Your task to perform on an android device: Open eBay Image 0: 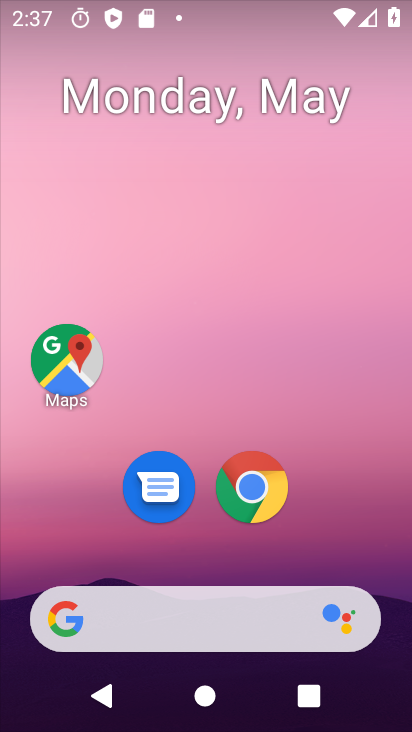
Step 0: click (264, 494)
Your task to perform on an android device: Open eBay Image 1: 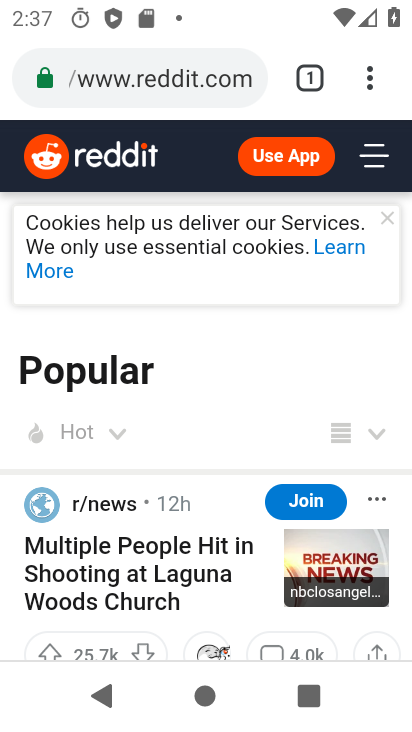
Step 1: click (180, 78)
Your task to perform on an android device: Open eBay Image 2: 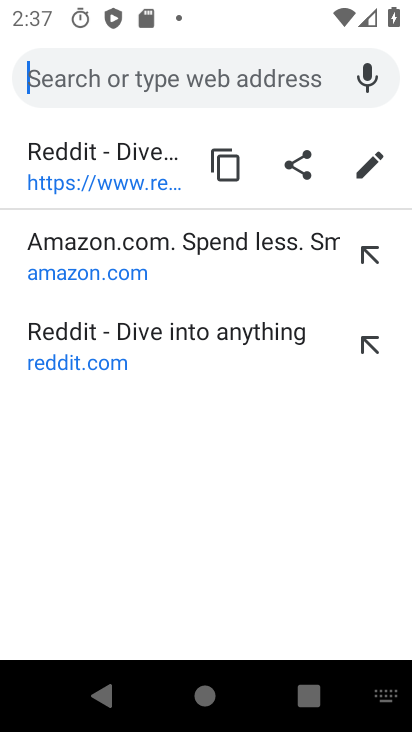
Step 2: type ""
Your task to perform on an android device: Open eBay Image 3: 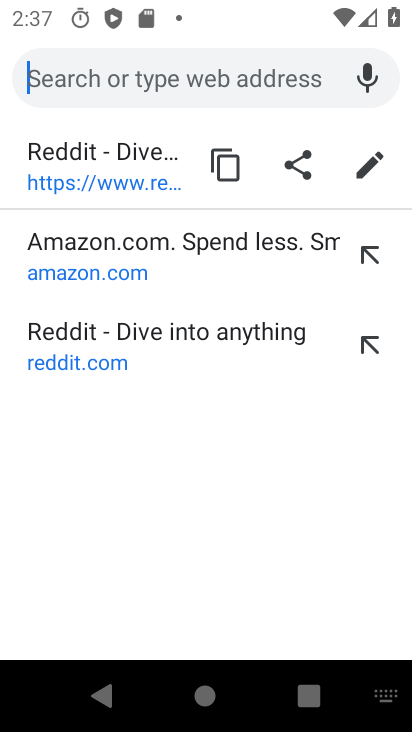
Step 3: type "eBay"
Your task to perform on an android device: Open eBay Image 4: 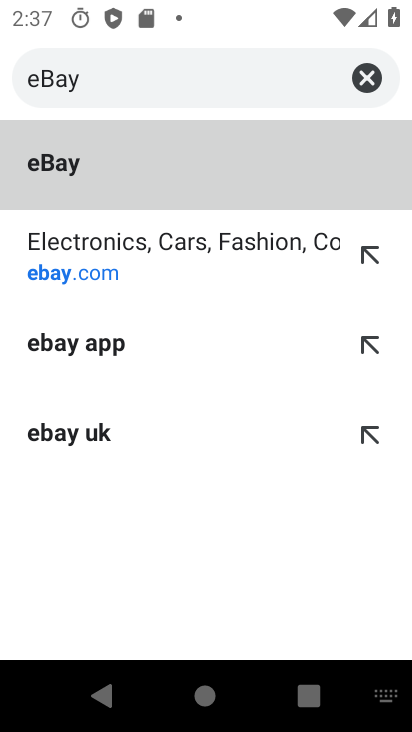
Step 4: click (110, 161)
Your task to perform on an android device: Open eBay Image 5: 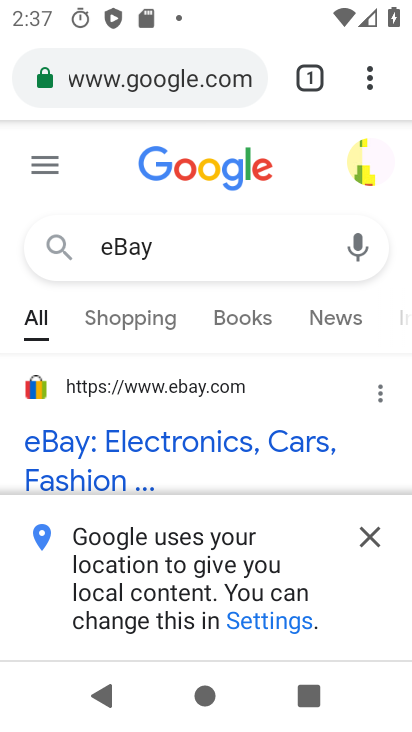
Step 5: click (370, 531)
Your task to perform on an android device: Open eBay Image 6: 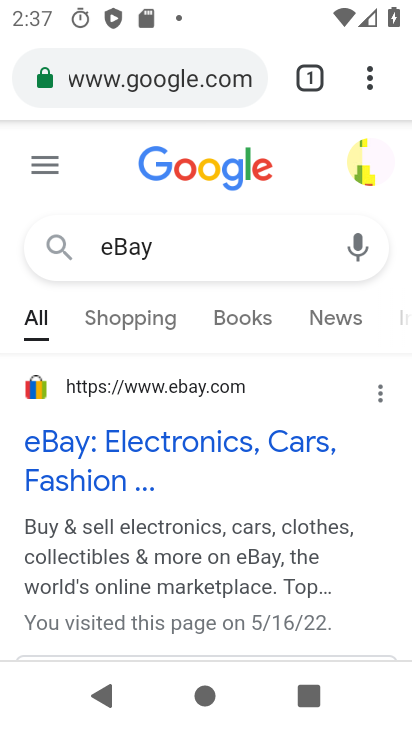
Step 6: task complete